Your task to perform on an android device: turn pop-ups off in chrome Image 0: 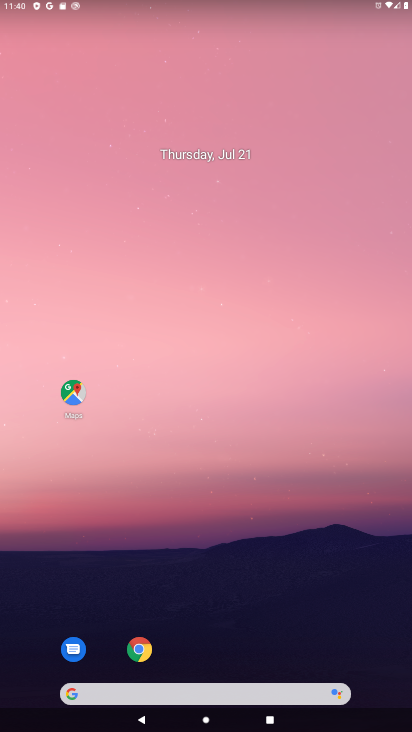
Step 0: drag from (304, 560) to (289, 0)
Your task to perform on an android device: turn pop-ups off in chrome Image 1: 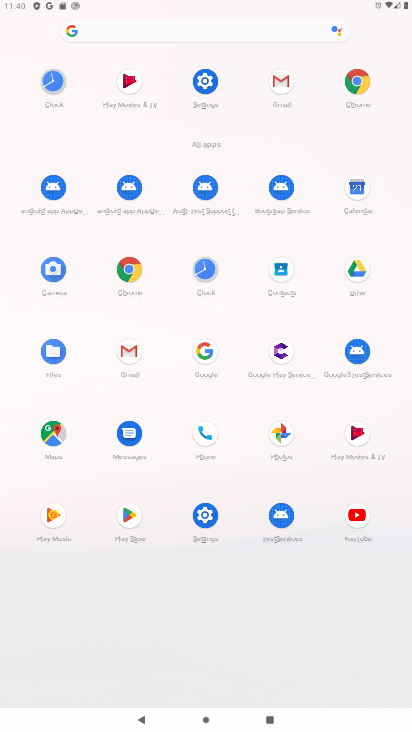
Step 1: click (361, 78)
Your task to perform on an android device: turn pop-ups off in chrome Image 2: 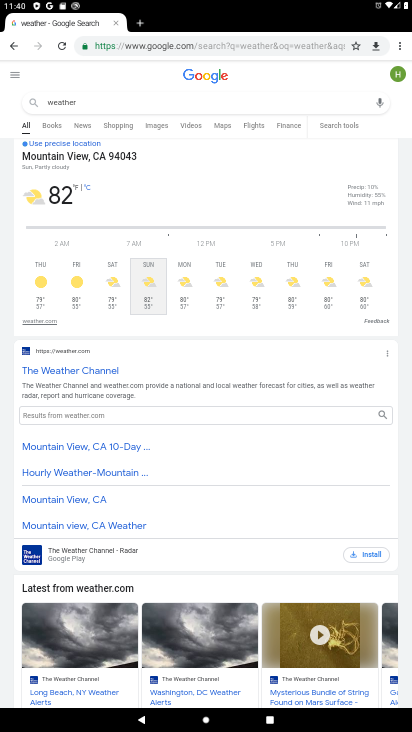
Step 2: drag from (402, 49) to (312, 309)
Your task to perform on an android device: turn pop-ups off in chrome Image 3: 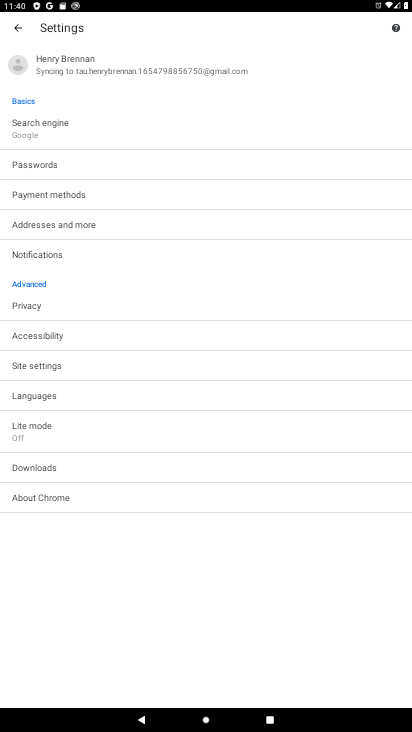
Step 3: click (45, 365)
Your task to perform on an android device: turn pop-ups off in chrome Image 4: 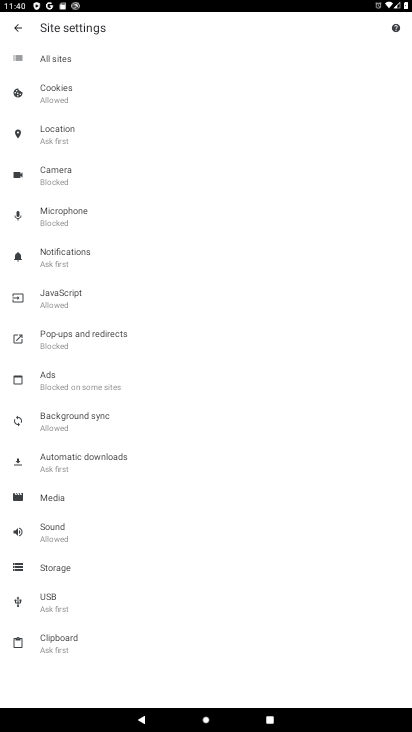
Step 4: click (83, 335)
Your task to perform on an android device: turn pop-ups off in chrome Image 5: 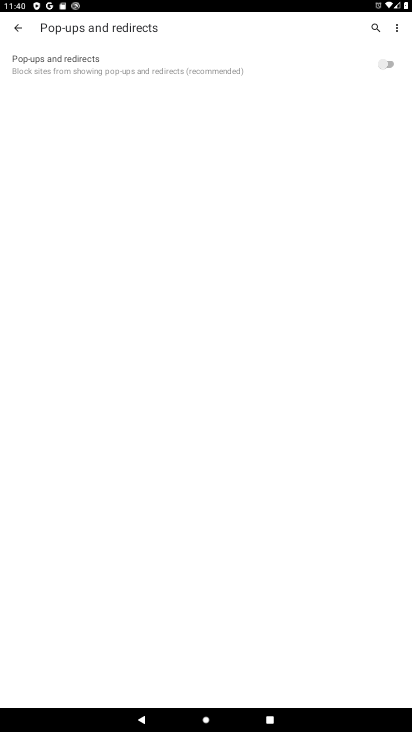
Step 5: task complete